Your task to perform on an android device: Open calendar and show me the second week of next month Image 0: 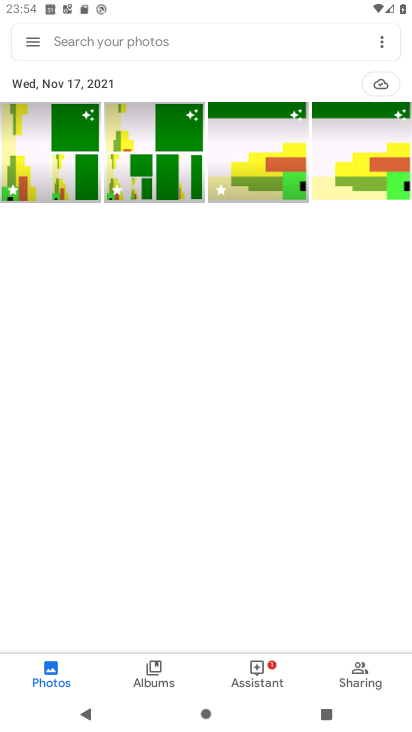
Step 0: press home button
Your task to perform on an android device: Open calendar and show me the second week of next month Image 1: 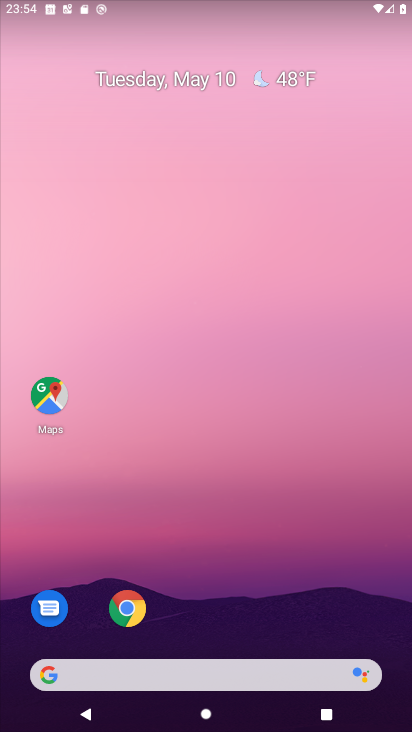
Step 1: drag from (231, 612) to (153, 341)
Your task to perform on an android device: Open calendar and show me the second week of next month Image 2: 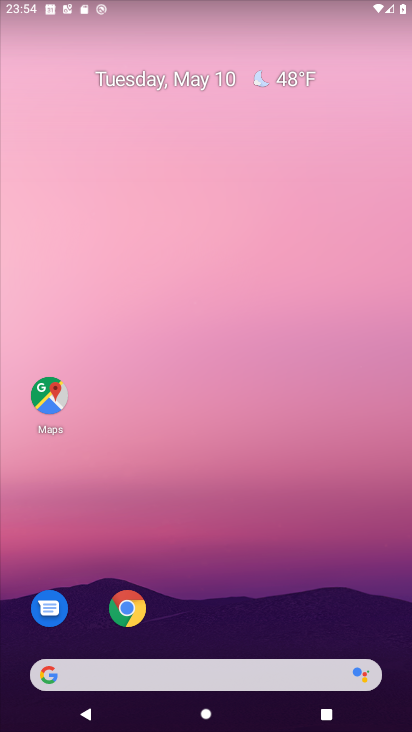
Step 2: drag from (225, 582) to (149, 0)
Your task to perform on an android device: Open calendar and show me the second week of next month Image 3: 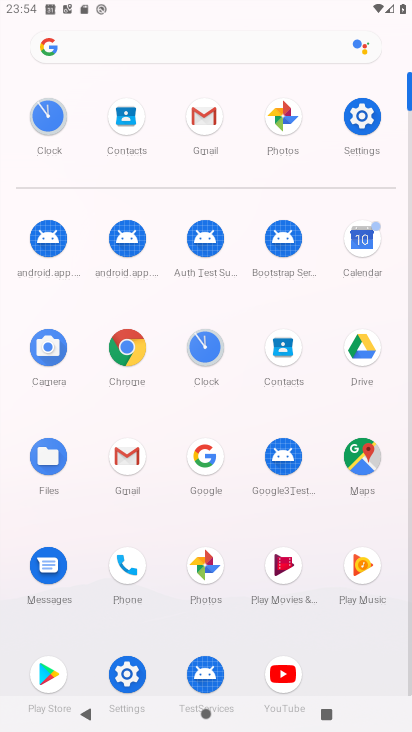
Step 3: click (360, 244)
Your task to perform on an android device: Open calendar and show me the second week of next month Image 4: 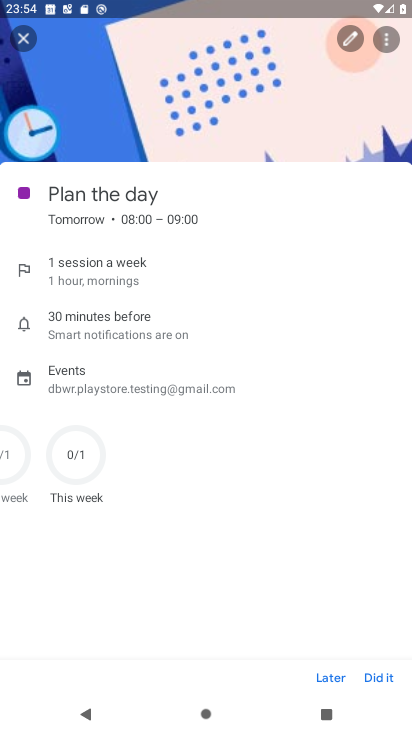
Step 4: press back button
Your task to perform on an android device: Open calendar and show me the second week of next month Image 5: 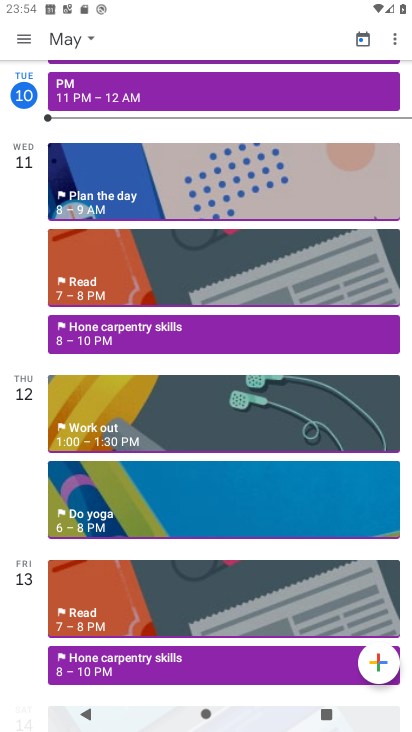
Step 5: click (75, 43)
Your task to perform on an android device: Open calendar and show me the second week of next month Image 6: 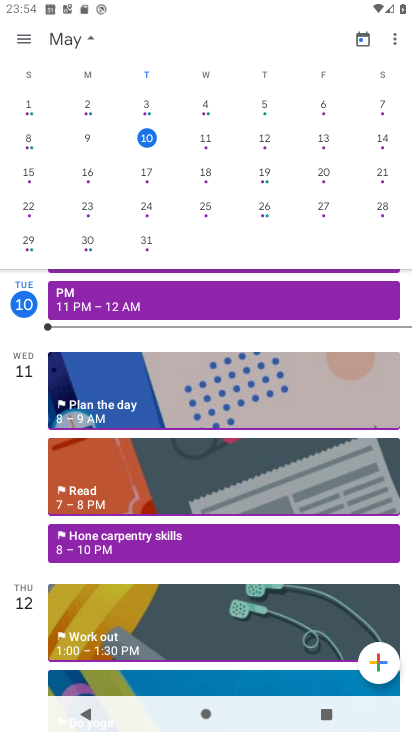
Step 6: drag from (360, 158) to (5, 123)
Your task to perform on an android device: Open calendar and show me the second week of next month Image 7: 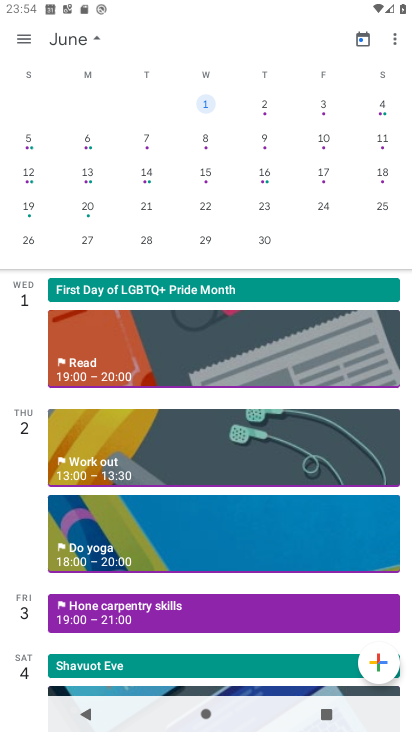
Step 7: click (33, 143)
Your task to perform on an android device: Open calendar and show me the second week of next month Image 8: 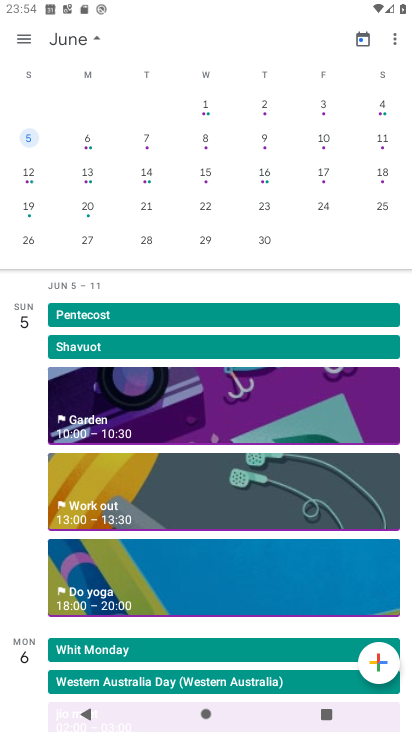
Step 8: click (25, 39)
Your task to perform on an android device: Open calendar and show me the second week of next month Image 9: 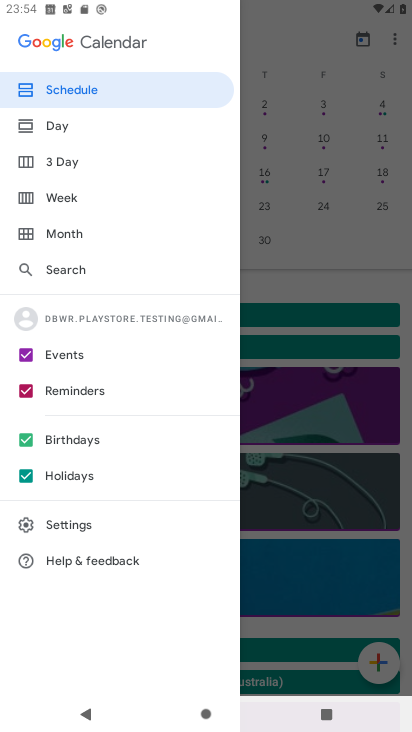
Step 9: click (61, 196)
Your task to perform on an android device: Open calendar and show me the second week of next month Image 10: 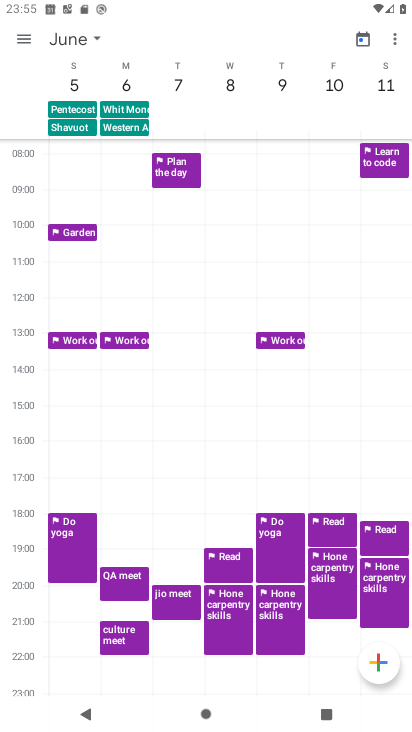
Step 10: task complete